Your task to perform on an android device: turn on the 24-hour format for clock Image 0: 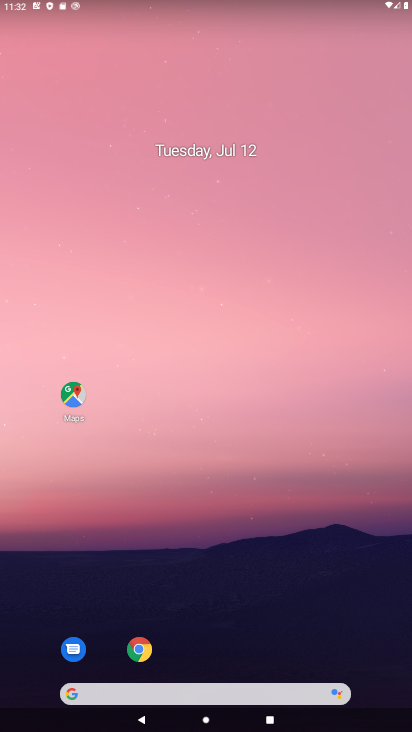
Step 0: drag from (381, 649) to (318, 103)
Your task to perform on an android device: turn on the 24-hour format for clock Image 1: 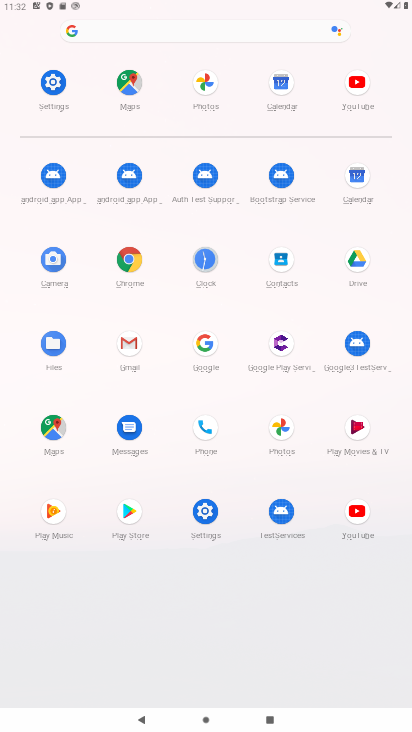
Step 1: click (203, 259)
Your task to perform on an android device: turn on the 24-hour format for clock Image 2: 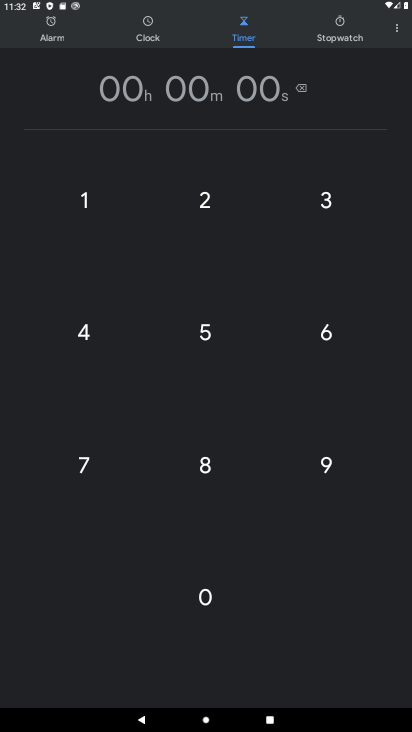
Step 2: click (397, 34)
Your task to perform on an android device: turn on the 24-hour format for clock Image 3: 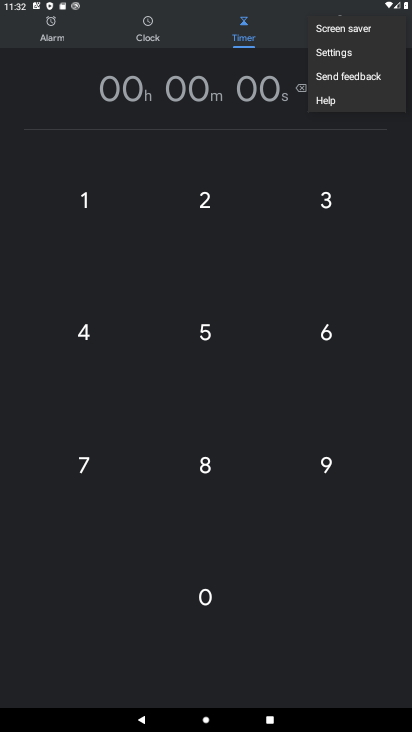
Step 3: click (336, 56)
Your task to perform on an android device: turn on the 24-hour format for clock Image 4: 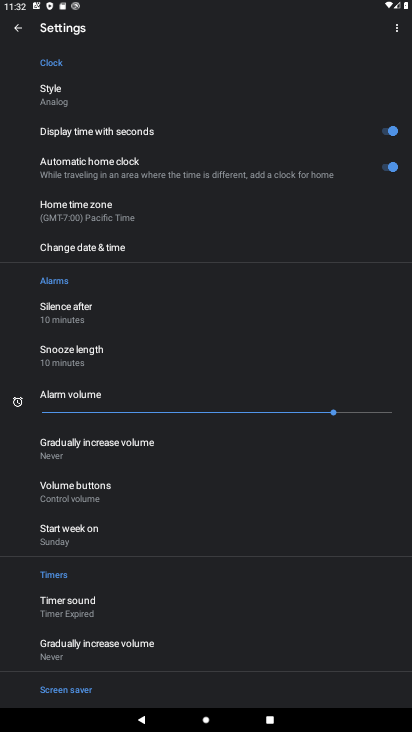
Step 4: click (115, 253)
Your task to perform on an android device: turn on the 24-hour format for clock Image 5: 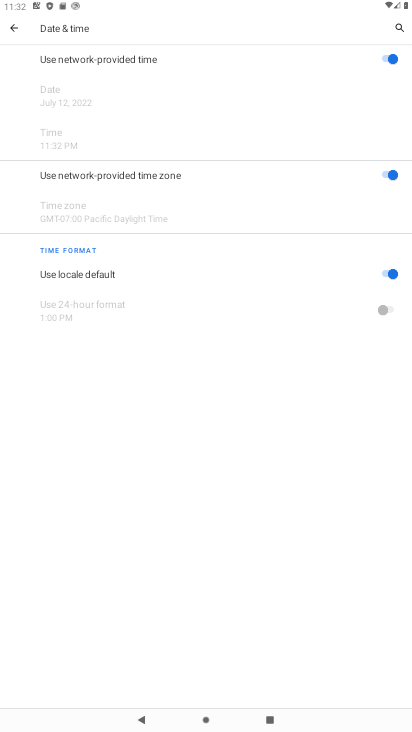
Step 5: click (383, 276)
Your task to perform on an android device: turn on the 24-hour format for clock Image 6: 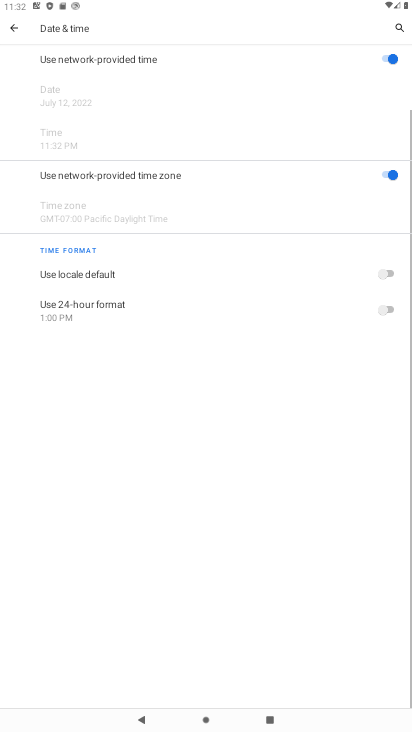
Step 6: click (391, 308)
Your task to perform on an android device: turn on the 24-hour format for clock Image 7: 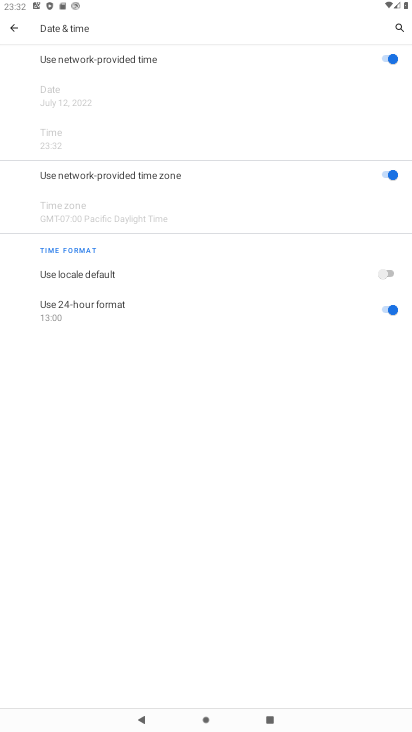
Step 7: task complete